Your task to perform on an android device: change the clock display to show seconds Image 0: 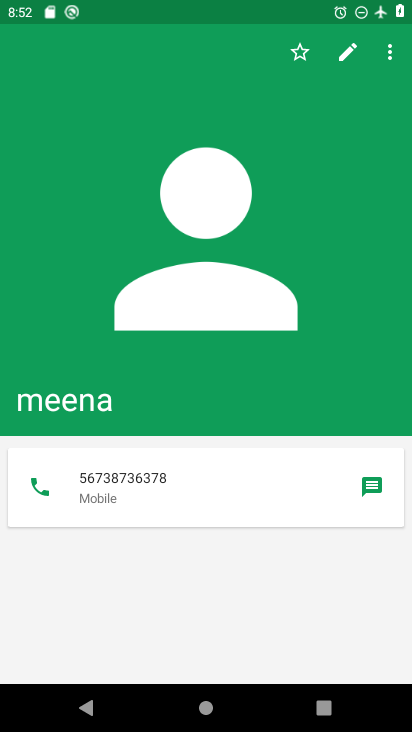
Step 0: press home button
Your task to perform on an android device: change the clock display to show seconds Image 1: 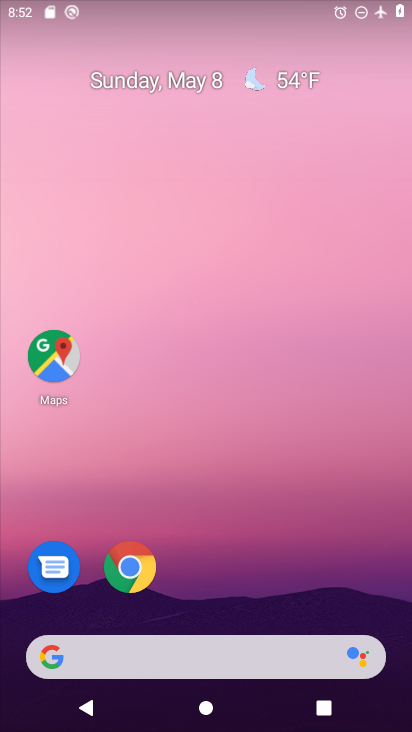
Step 1: drag from (321, 555) to (367, 86)
Your task to perform on an android device: change the clock display to show seconds Image 2: 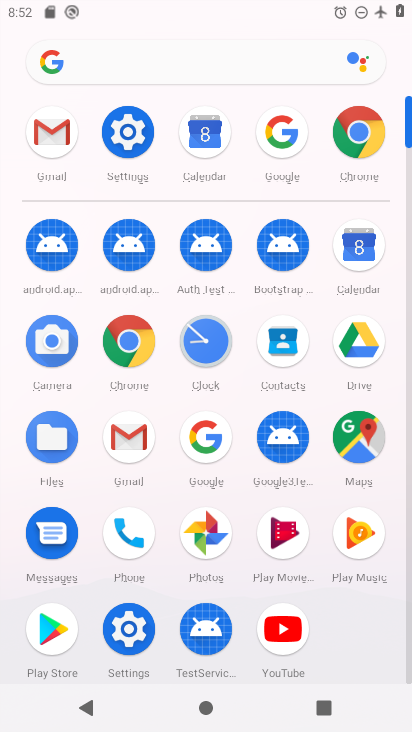
Step 2: click (208, 354)
Your task to perform on an android device: change the clock display to show seconds Image 3: 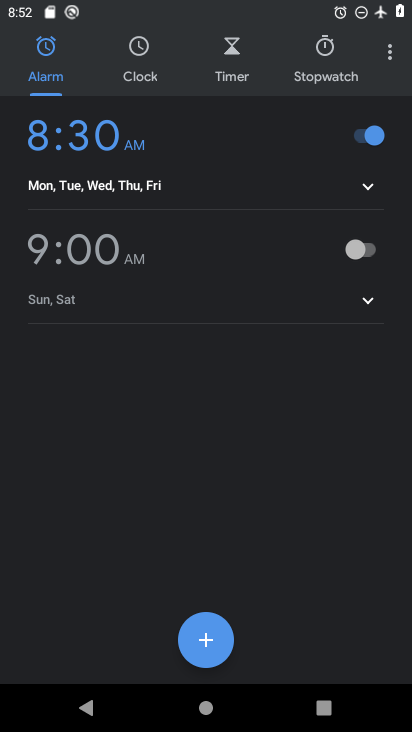
Step 3: click (381, 62)
Your task to perform on an android device: change the clock display to show seconds Image 4: 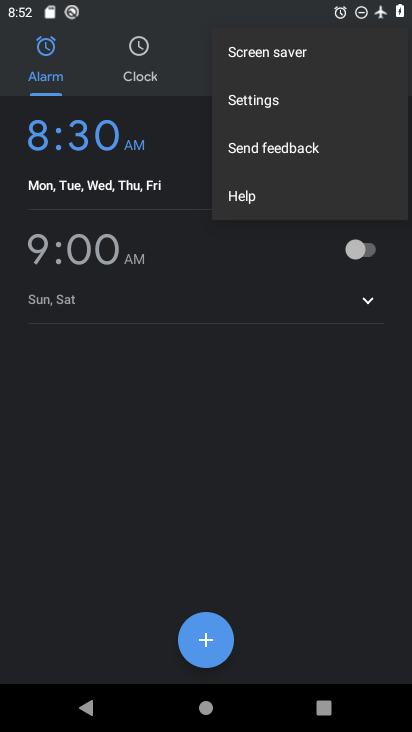
Step 4: click (266, 101)
Your task to perform on an android device: change the clock display to show seconds Image 5: 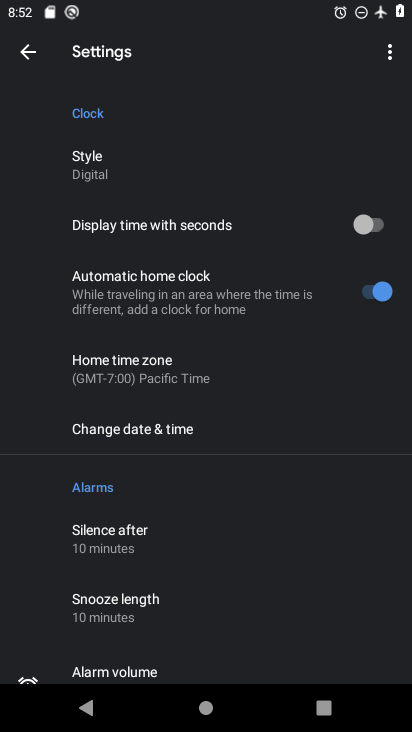
Step 5: click (92, 161)
Your task to perform on an android device: change the clock display to show seconds Image 6: 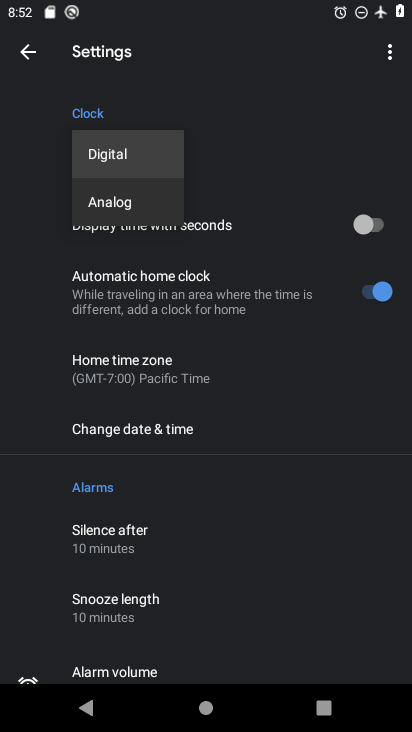
Step 6: click (380, 210)
Your task to perform on an android device: change the clock display to show seconds Image 7: 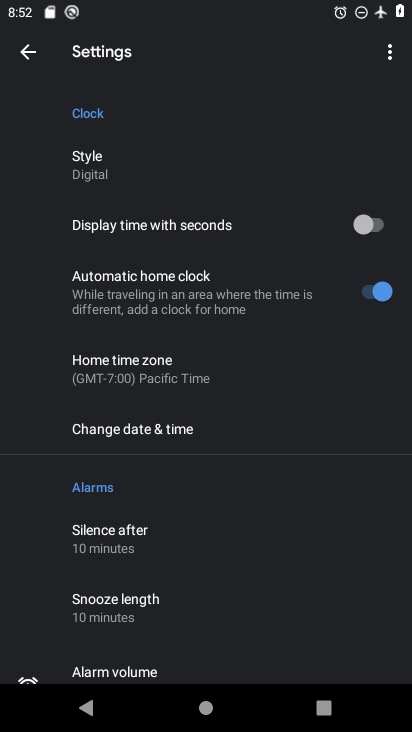
Step 7: click (374, 227)
Your task to perform on an android device: change the clock display to show seconds Image 8: 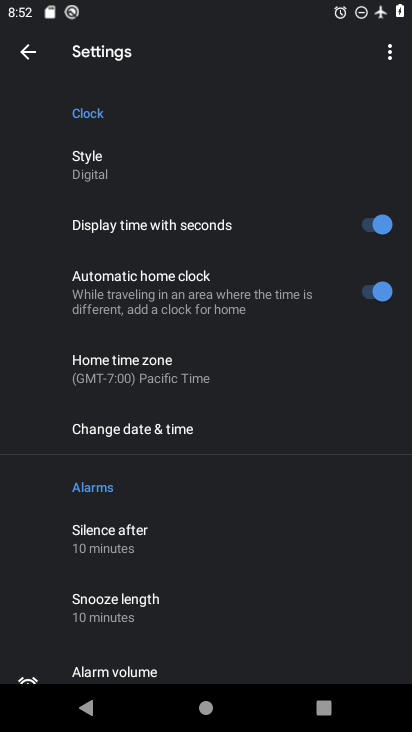
Step 8: task complete